Your task to perform on an android device: set default search engine in the chrome app Image 0: 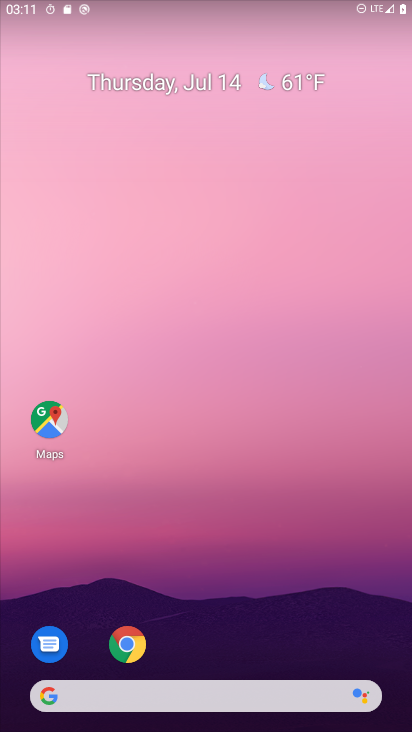
Step 0: drag from (266, 622) to (243, 44)
Your task to perform on an android device: set default search engine in the chrome app Image 1: 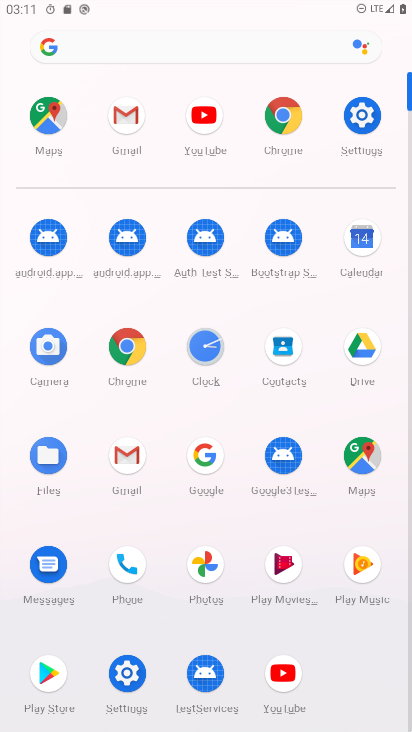
Step 1: click (282, 112)
Your task to perform on an android device: set default search engine in the chrome app Image 2: 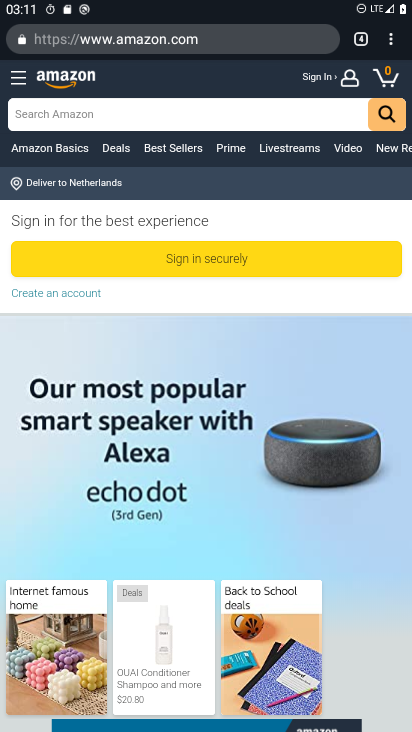
Step 2: drag from (386, 36) to (275, 474)
Your task to perform on an android device: set default search engine in the chrome app Image 3: 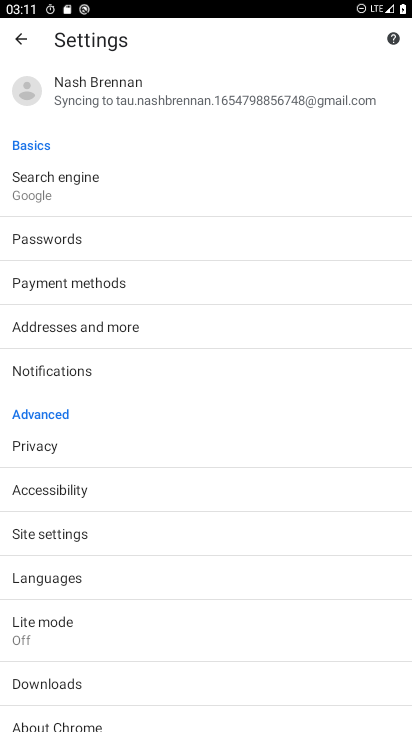
Step 3: click (70, 175)
Your task to perform on an android device: set default search engine in the chrome app Image 4: 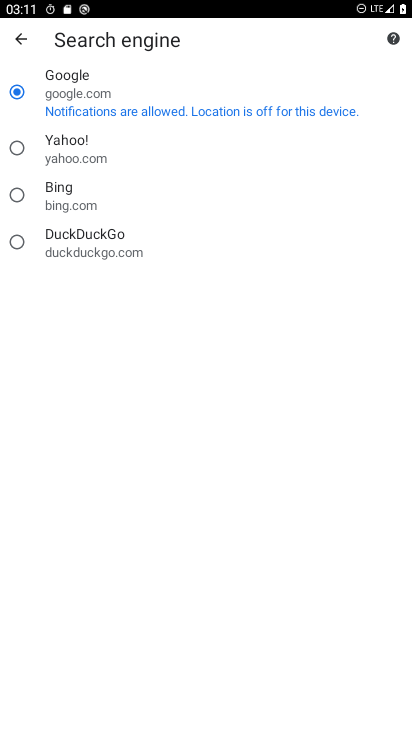
Step 4: task complete